Your task to perform on an android device: change the clock display to show seconds Image 0: 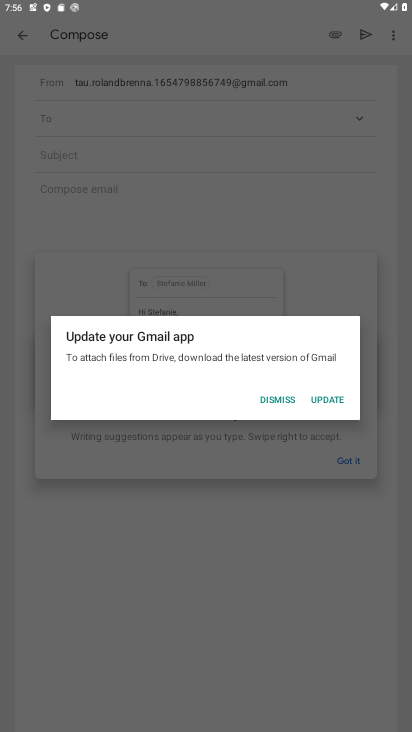
Step 0: press home button
Your task to perform on an android device: change the clock display to show seconds Image 1: 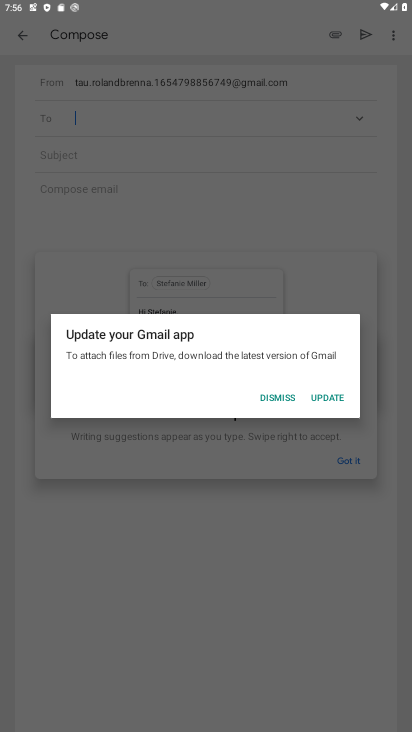
Step 1: click (301, 168)
Your task to perform on an android device: change the clock display to show seconds Image 2: 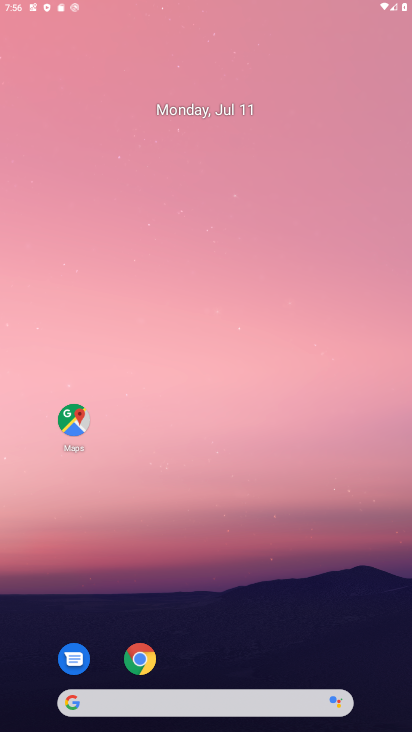
Step 2: drag from (179, 488) to (249, 43)
Your task to perform on an android device: change the clock display to show seconds Image 3: 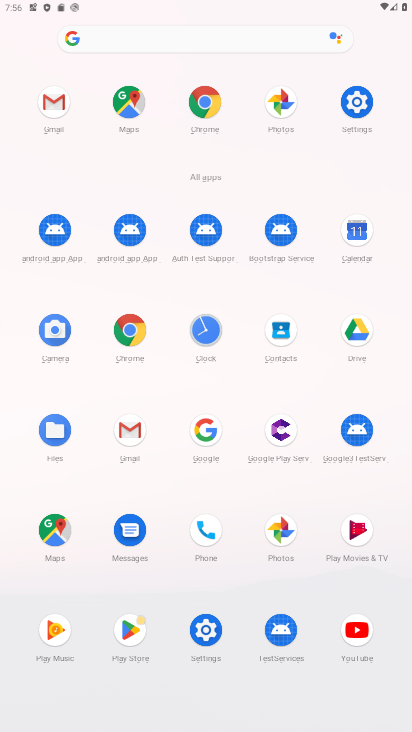
Step 3: click (352, 97)
Your task to perform on an android device: change the clock display to show seconds Image 4: 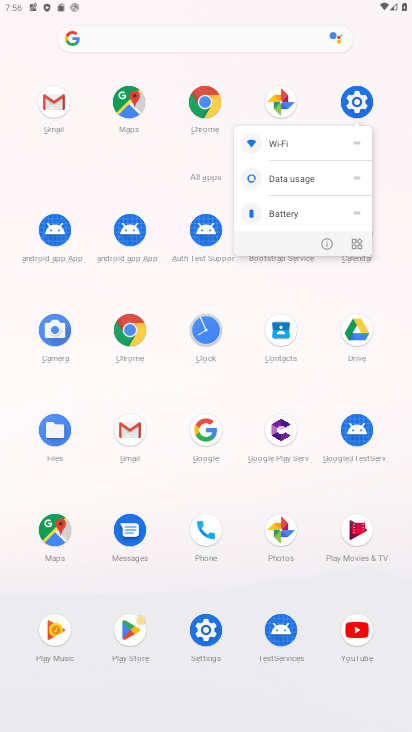
Step 4: click (326, 244)
Your task to perform on an android device: change the clock display to show seconds Image 5: 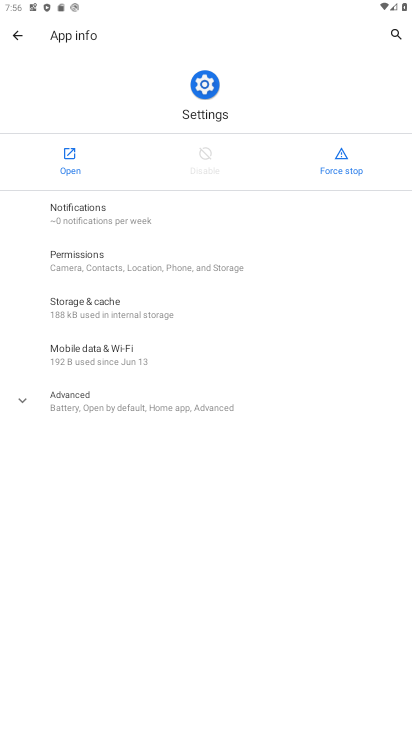
Step 5: click (65, 179)
Your task to perform on an android device: change the clock display to show seconds Image 6: 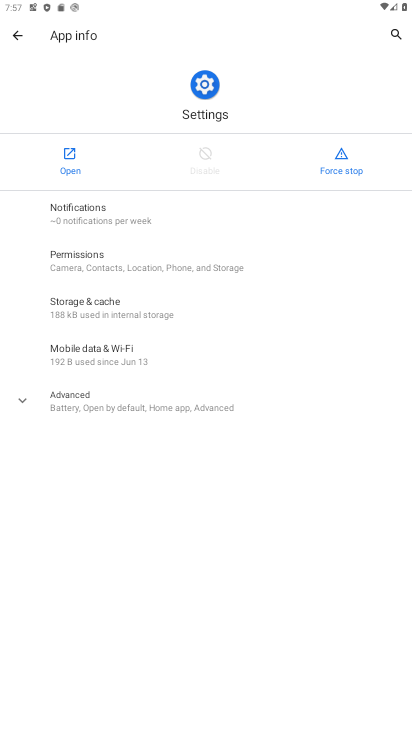
Step 6: click (65, 179)
Your task to perform on an android device: change the clock display to show seconds Image 7: 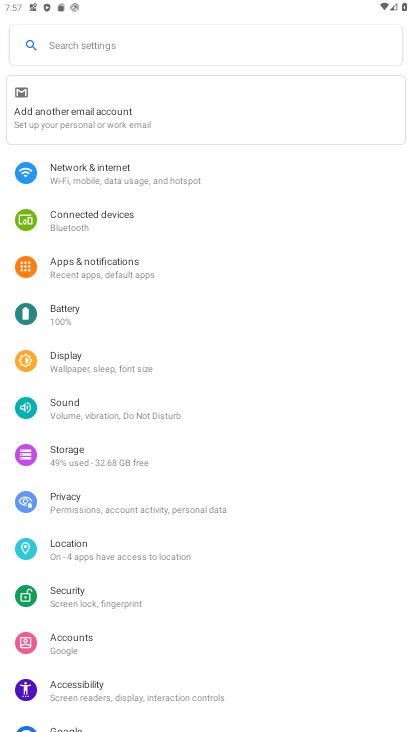
Step 7: drag from (106, 696) to (133, 237)
Your task to perform on an android device: change the clock display to show seconds Image 8: 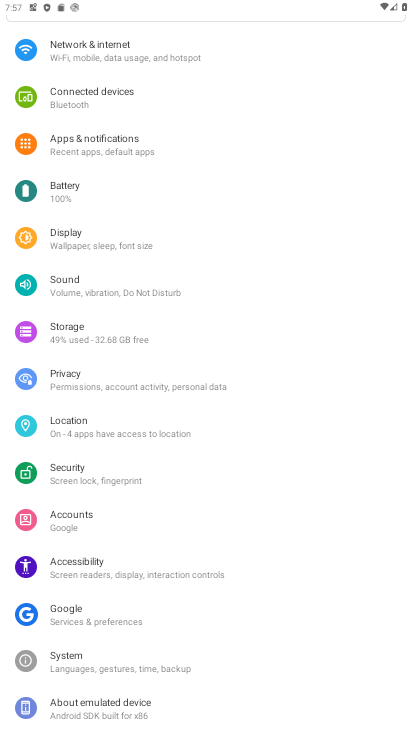
Step 8: press home button
Your task to perform on an android device: change the clock display to show seconds Image 9: 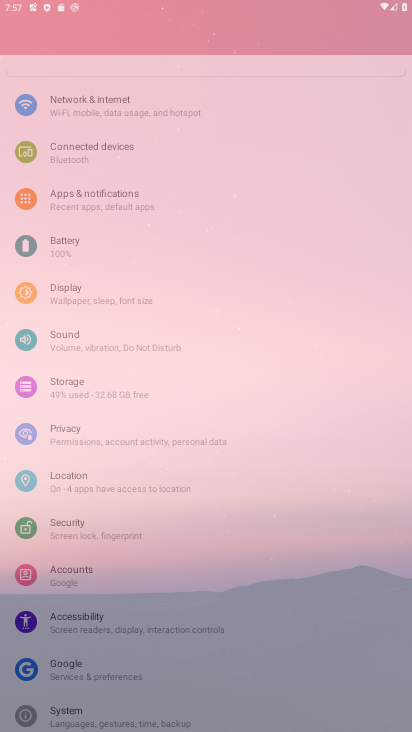
Step 9: drag from (200, 539) to (258, 232)
Your task to perform on an android device: change the clock display to show seconds Image 10: 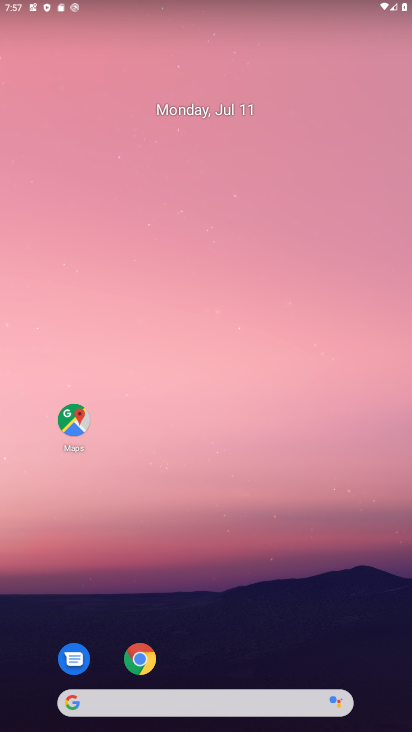
Step 10: drag from (204, 658) to (200, 11)
Your task to perform on an android device: change the clock display to show seconds Image 11: 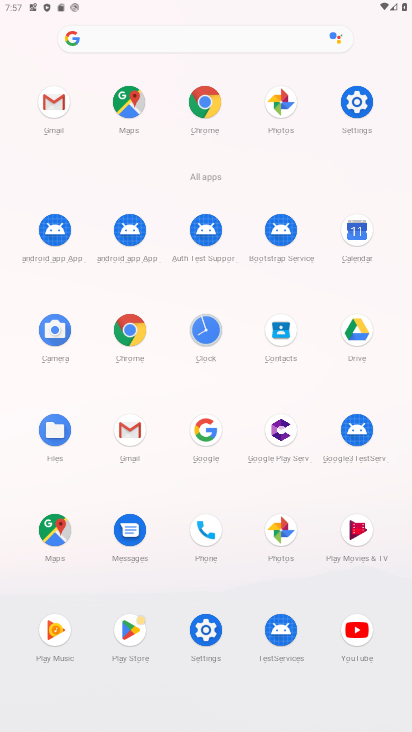
Step 11: click (210, 320)
Your task to perform on an android device: change the clock display to show seconds Image 12: 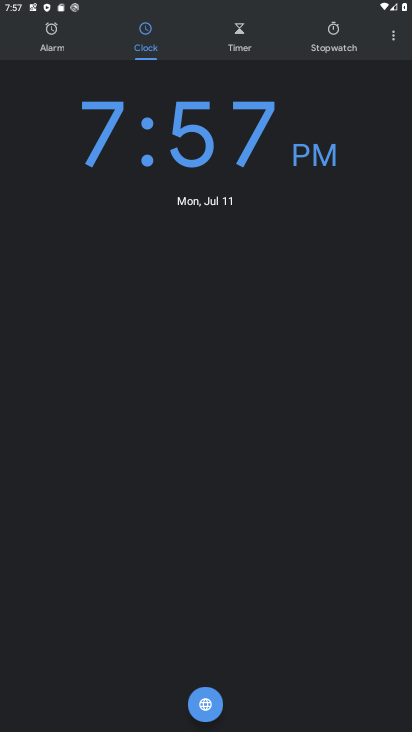
Step 12: drag from (158, 637) to (261, 111)
Your task to perform on an android device: change the clock display to show seconds Image 13: 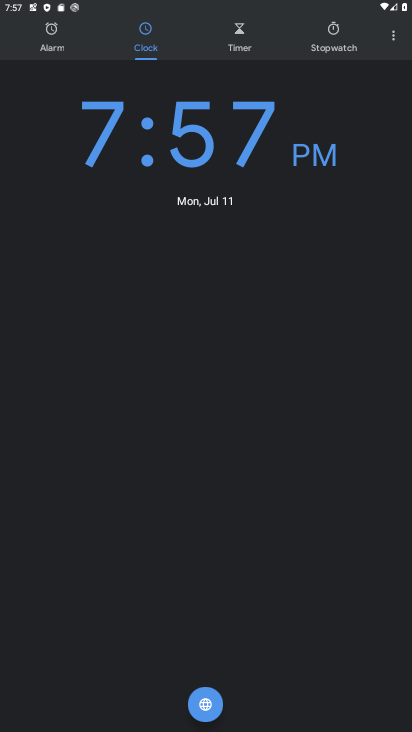
Step 13: click (391, 36)
Your task to perform on an android device: change the clock display to show seconds Image 14: 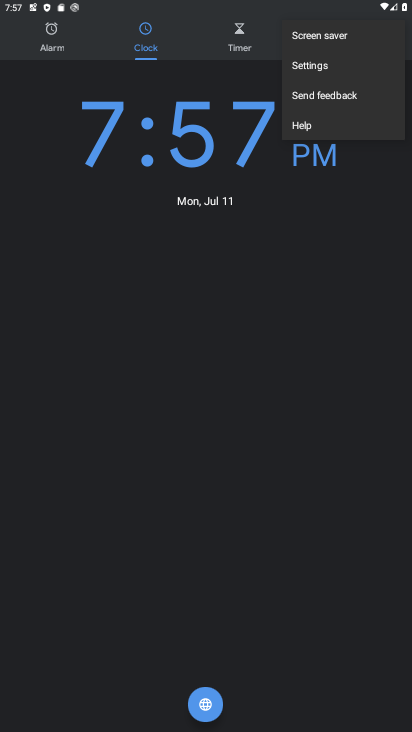
Step 14: click (322, 68)
Your task to perform on an android device: change the clock display to show seconds Image 15: 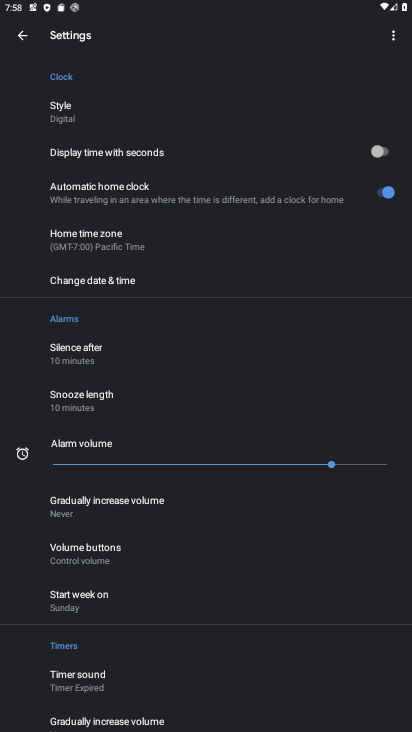
Step 15: drag from (190, 597) to (241, 115)
Your task to perform on an android device: change the clock display to show seconds Image 16: 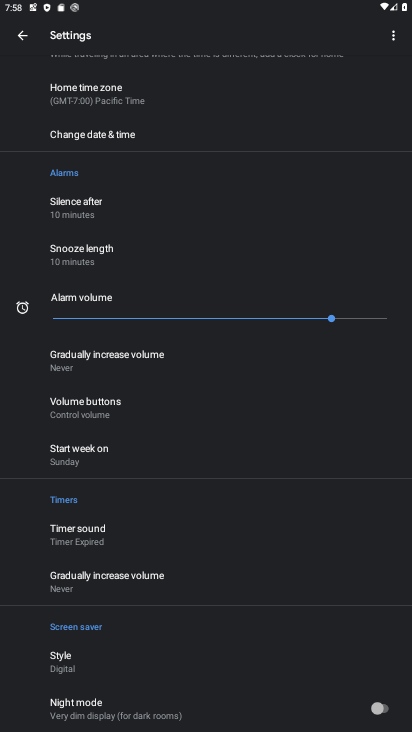
Step 16: drag from (170, 438) to (176, 607)
Your task to perform on an android device: change the clock display to show seconds Image 17: 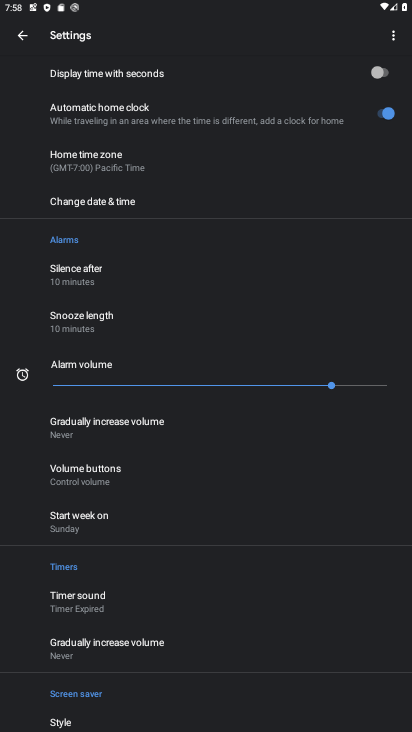
Step 17: drag from (193, 206) to (248, 726)
Your task to perform on an android device: change the clock display to show seconds Image 18: 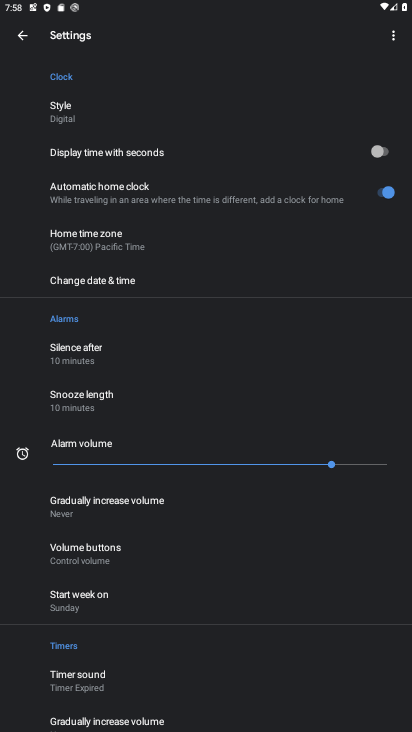
Step 18: drag from (259, 238) to (283, 715)
Your task to perform on an android device: change the clock display to show seconds Image 19: 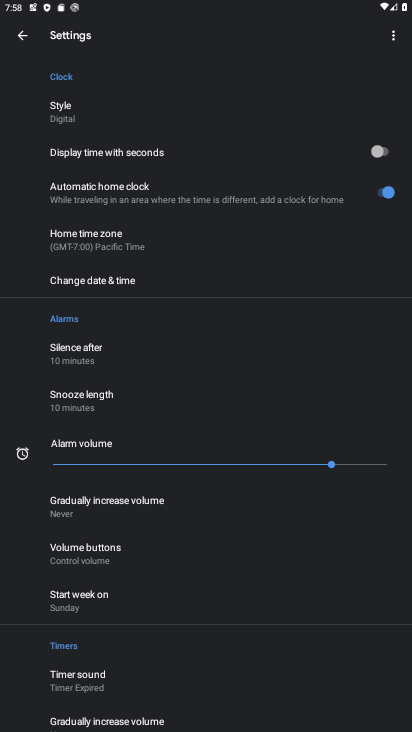
Step 19: drag from (248, 172) to (273, 346)
Your task to perform on an android device: change the clock display to show seconds Image 20: 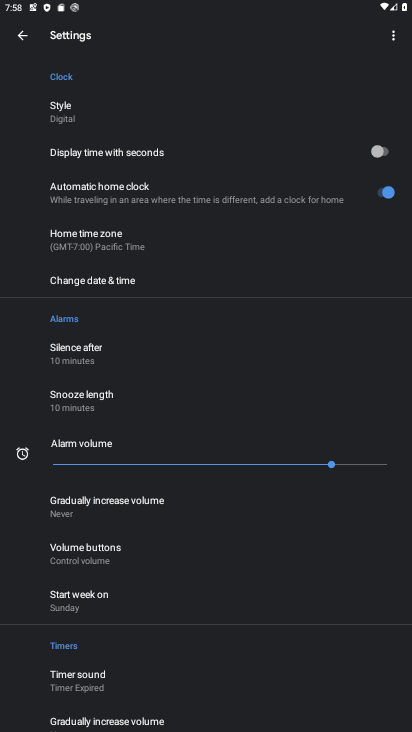
Step 20: click (371, 149)
Your task to perform on an android device: change the clock display to show seconds Image 21: 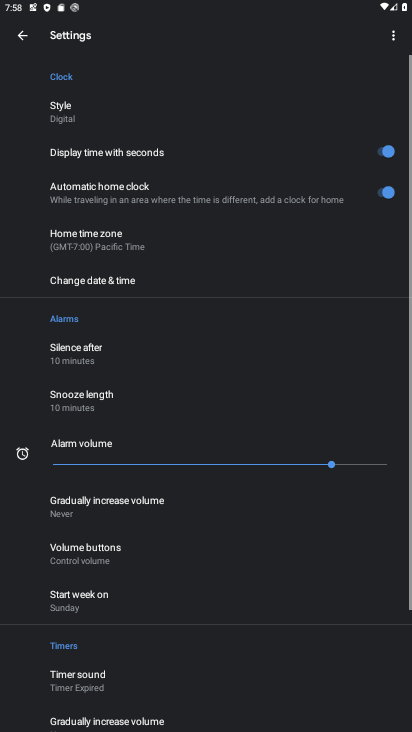
Step 21: task complete